Your task to perform on an android device: Check the weather Image 0: 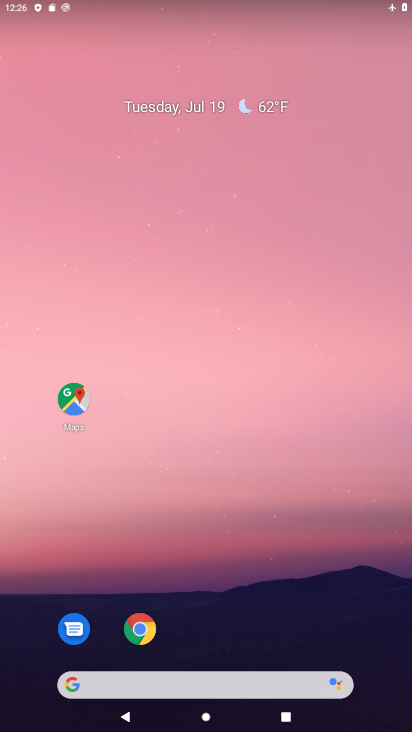
Step 0: click (296, 679)
Your task to perform on an android device: Check the weather Image 1: 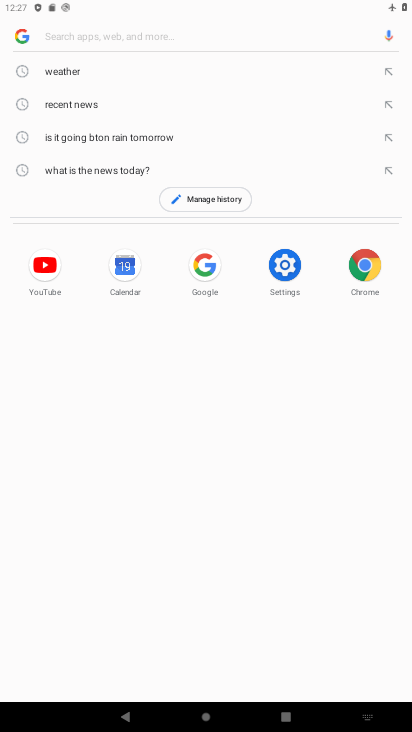
Step 1: click (56, 71)
Your task to perform on an android device: Check the weather Image 2: 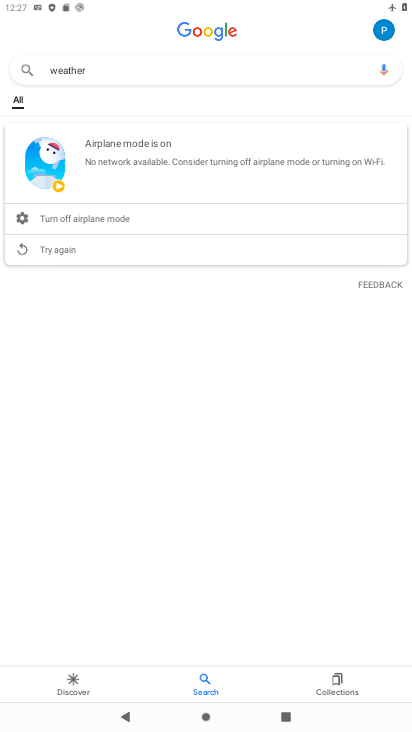
Step 2: task complete